Your task to perform on an android device: Open my contact list Image 0: 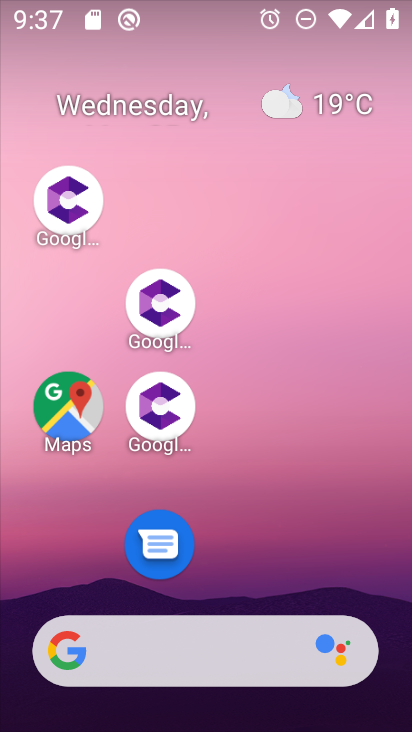
Step 0: drag from (320, 552) to (212, 93)
Your task to perform on an android device: Open my contact list Image 1: 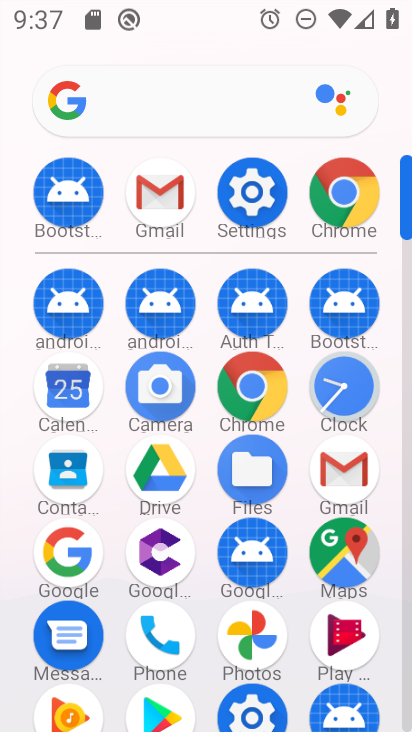
Step 1: click (58, 468)
Your task to perform on an android device: Open my contact list Image 2: 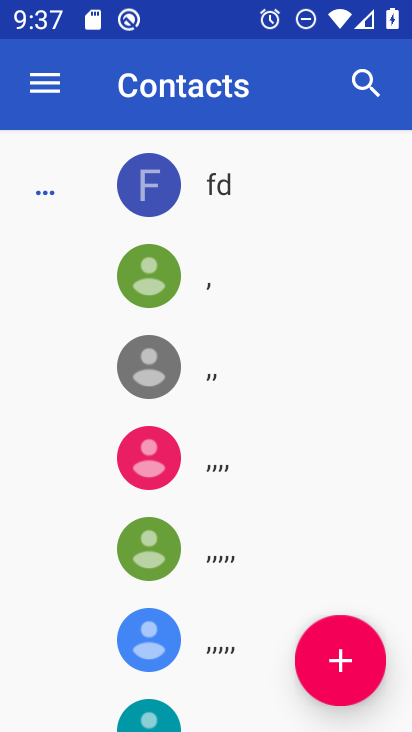
Step 2: task complete